Your task to perform on an android device: Play the last video I watched on Youtube Image 0: 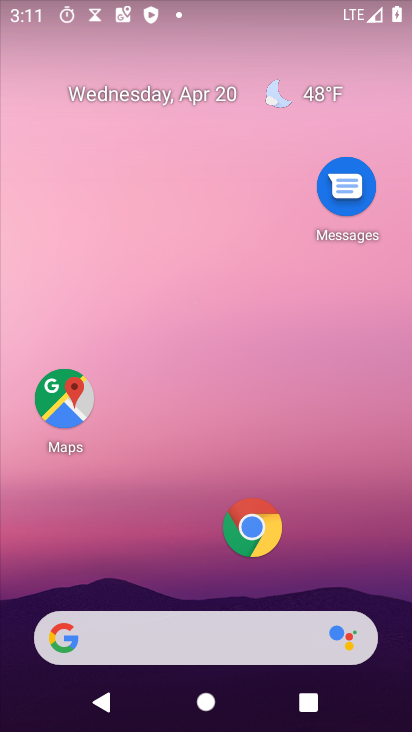
Step 0: drag from (172, 629) to (302, 52)
Your task to perform on an android device: Play the last video I watched on Youtube Image 1: 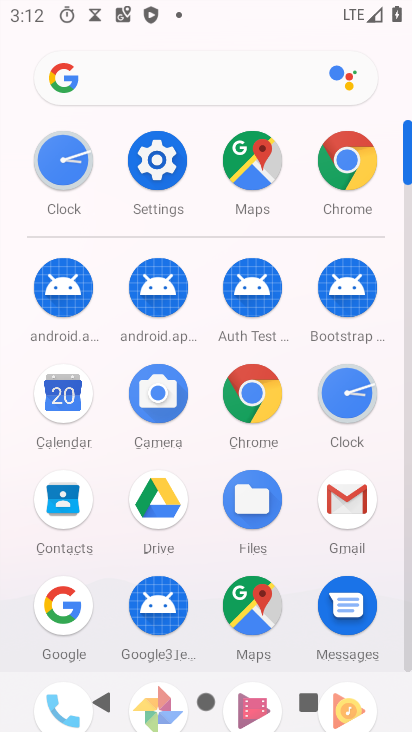
Step 1: drag from (182, 593) to (299, 263)
Your task to perform on an android device: Play the last video I watched on Youtube Image 2: 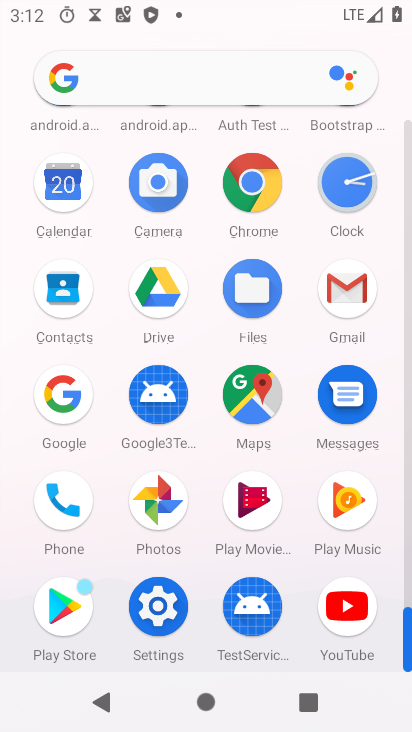
Step 2: click (343, 611)
Your task to perform on an android device: Play the last video I watched on Youtube Image 3: 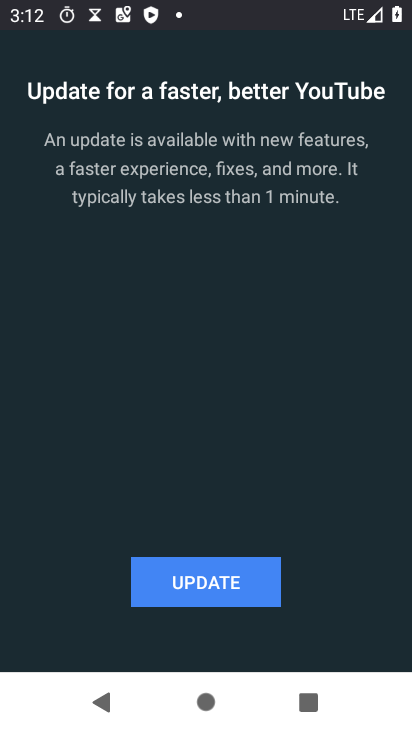
Step 3: click (234, 584)
Your task to perform on an android device: Play the last video I watched on Youtube Image 4: 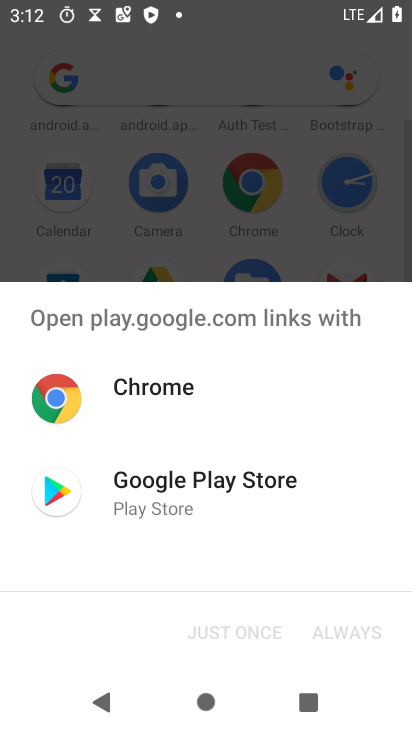
Step 4: click (166, 484)
Your task to perform on an android device: Play the last video I watched on Youtube Image 5: 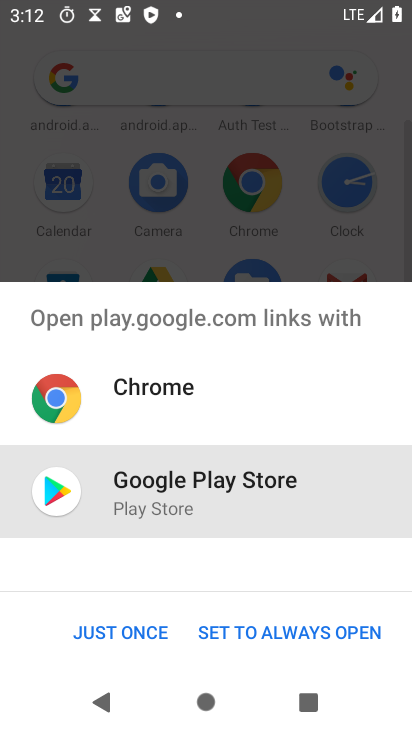
Step 5: click (112, 629)
Your task to perform on an android device: Play the last video I watched on Youtube Image 6: 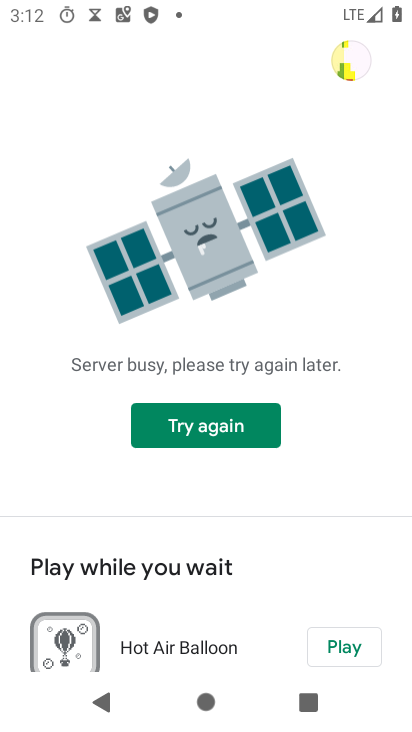
Step 6: task complete